Your task to perform on an android device: Open Android settings Image 0: 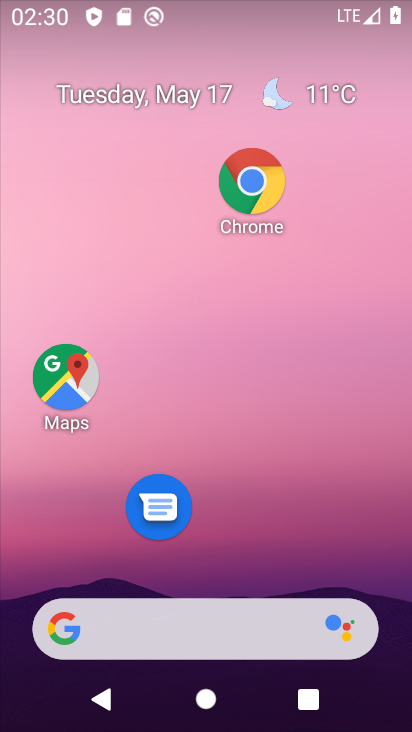
Step 0: drag from (246, 578) to (231, 184)
Your task to perform on an android device: Open Android settings Image 1: 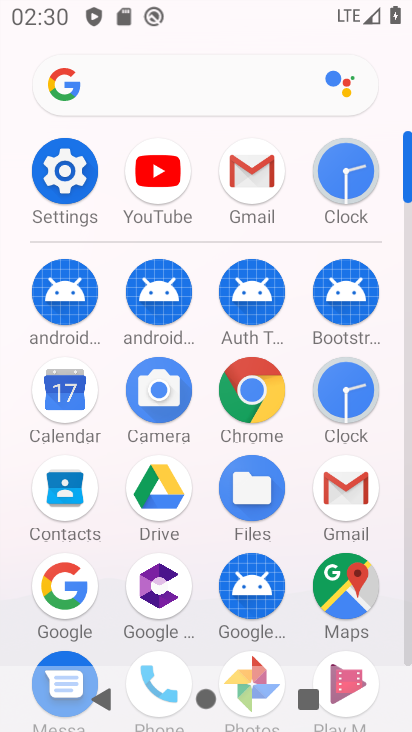
Step 1: click (55, 179)
Your task to perform on an android device: Open Android settings Image 2: 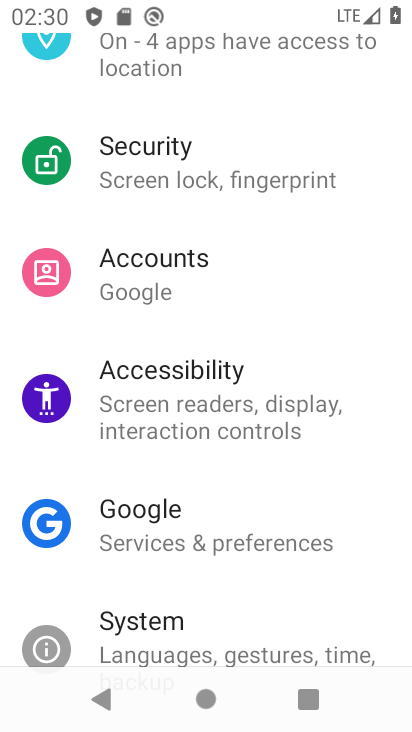
Step 2: task complete